Your task to perform on an android device: What's the weather today? Image 0: 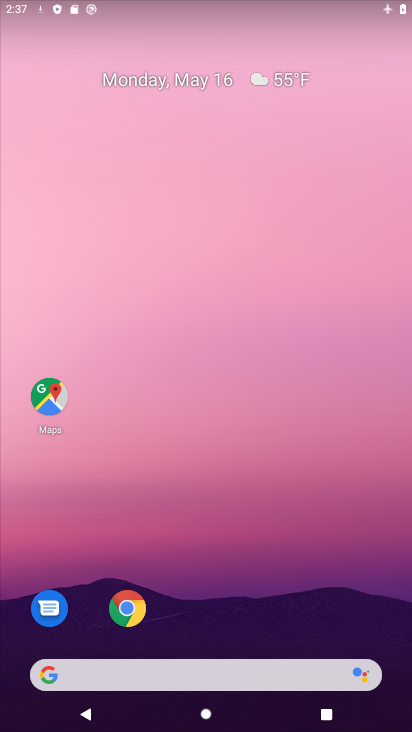
Step 0: drag from (217, 628) to (187, 170)
Your task to perform on an android device: What's the weather today? Image 1: 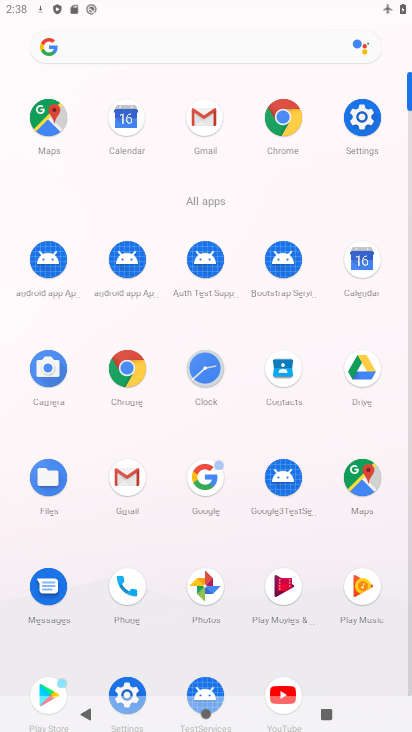
Step 1: click (210, 478)
Your task to perform on an android device: What's the weather today? Image 2: 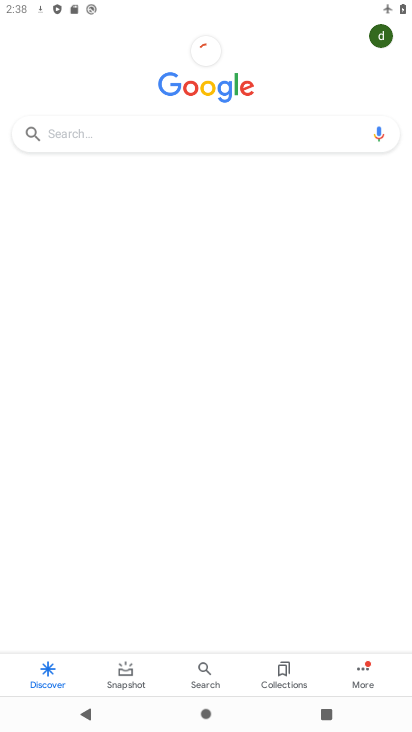
Step 2: click (209, 123)
Your task to perform on an android device: What's the weather today? Image 3: 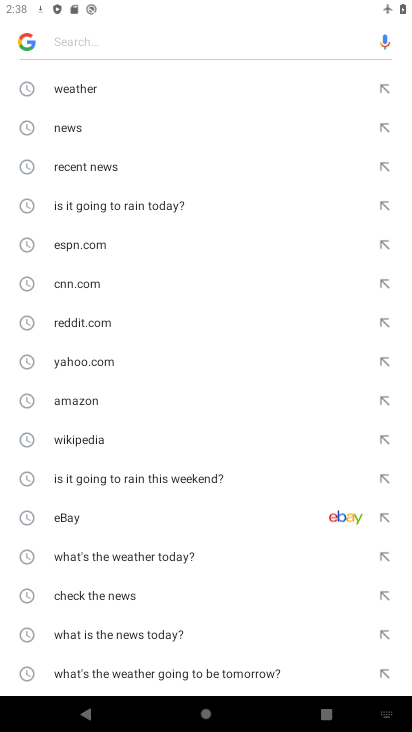
Step 3: click (86, 76)
Your task to perform on an android device: What's the weather today? Image 4: 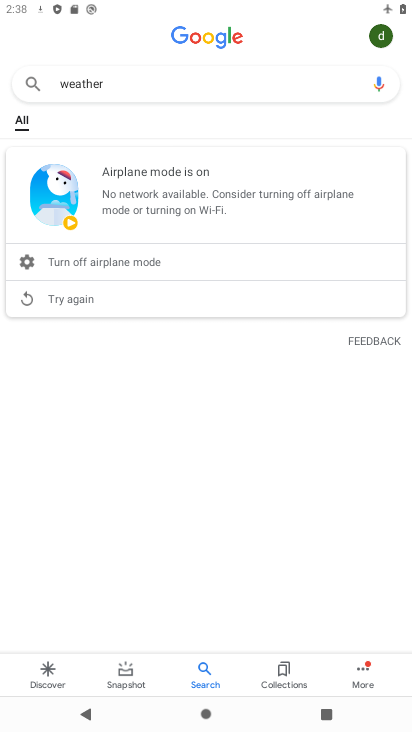
Step 4: task complete